Your task to perform on an android device: turn off location Image 0: 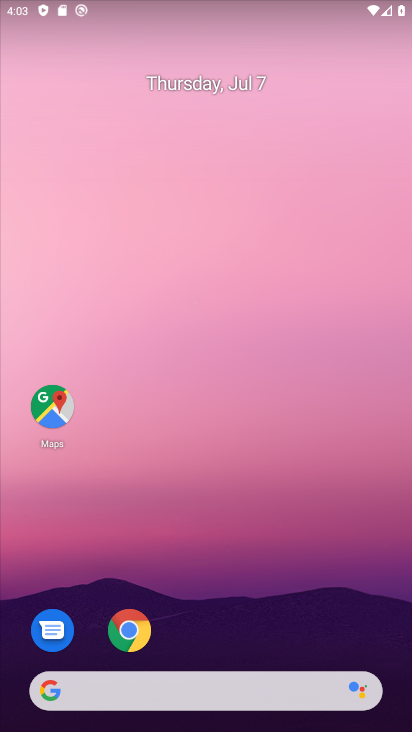
Step 0: drag from (189, 651) to (289, 138)
Your task to perform on an android device: turn off location Image 1: 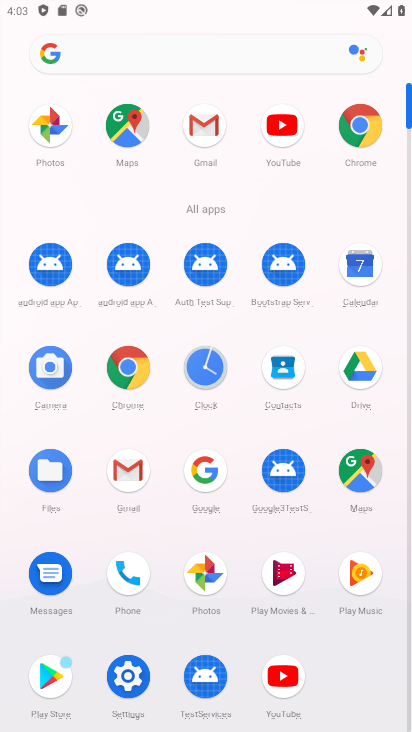
Step 1: click (109, 668)
Your task to perform on an android device: turn off location Image 2: 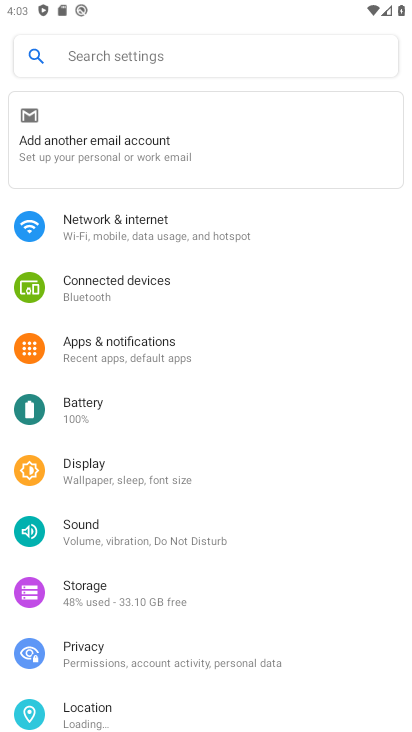
Step 2: drag from (153, 584) to (216, 396)
Your task to perform on an android device: turn off location Image 3: 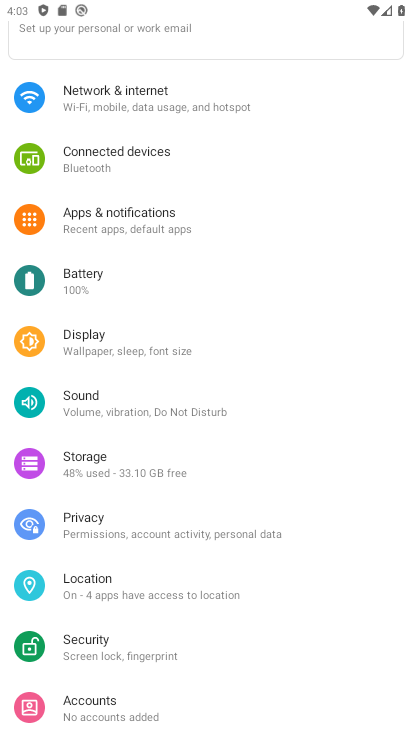
Step 3: click (115, 588)
Your task to perform on an android device: turn off location Image 4: 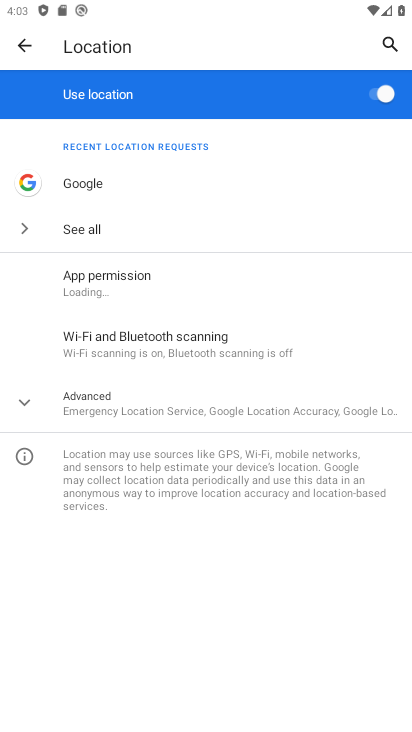
Step 4: click (173, 416)
Your task to perform on an android device: turn off location Image 5: 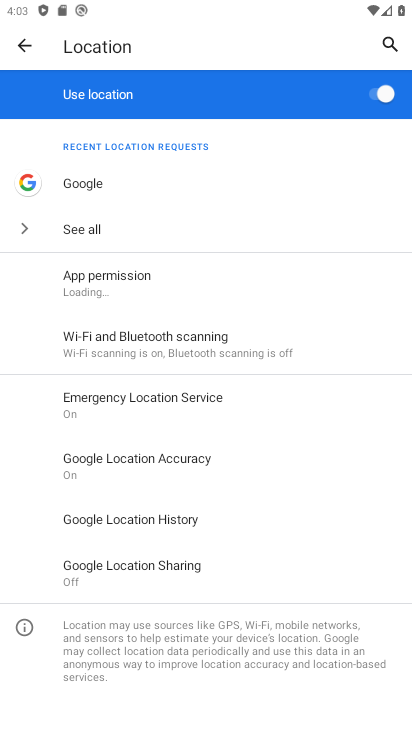
Step 5: click (368, 94)
Your task to perform on an android device: turn off location Image 6: 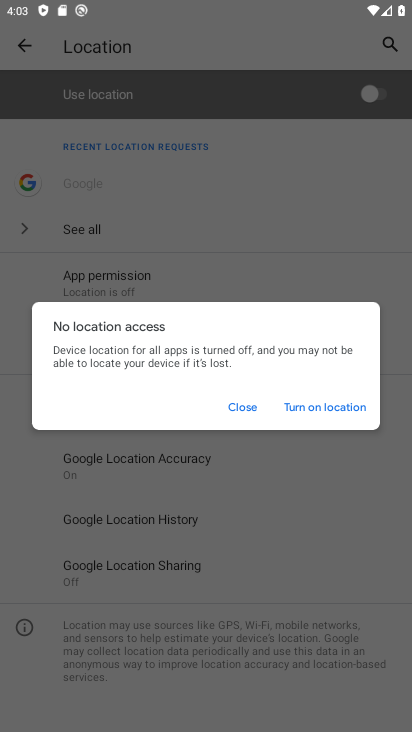
Step 6: click (243, 399)
Your task to perform on an android device: turn off location Image 7: 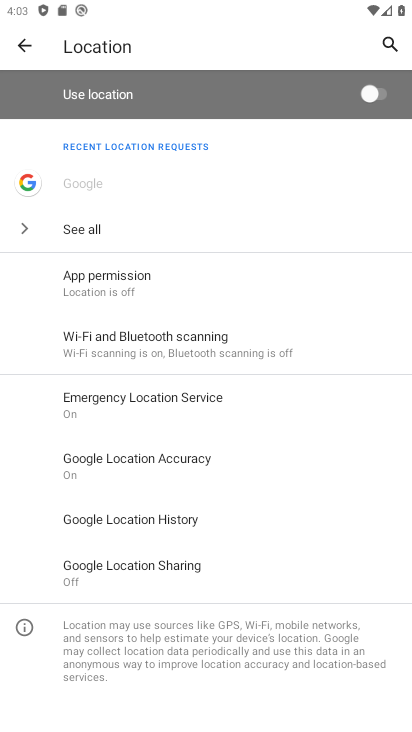
Step 7: task complete